Your task to perform on an android device: Go to battery settings Image 0: 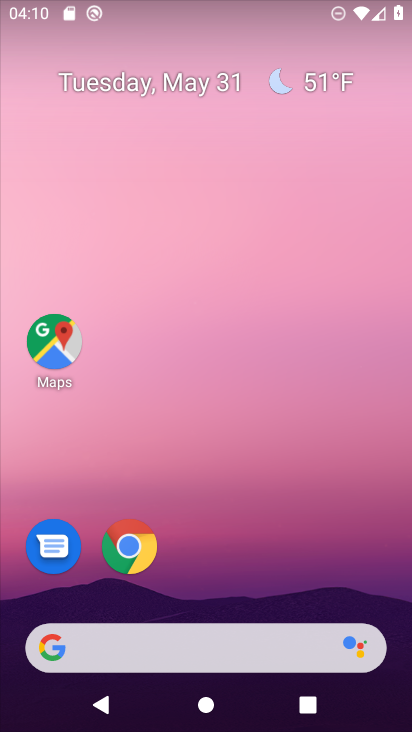
Step 0: drag from (221, 589) to (183, 99)
Your task to perform on an android device: Go to battery settings Image 1: 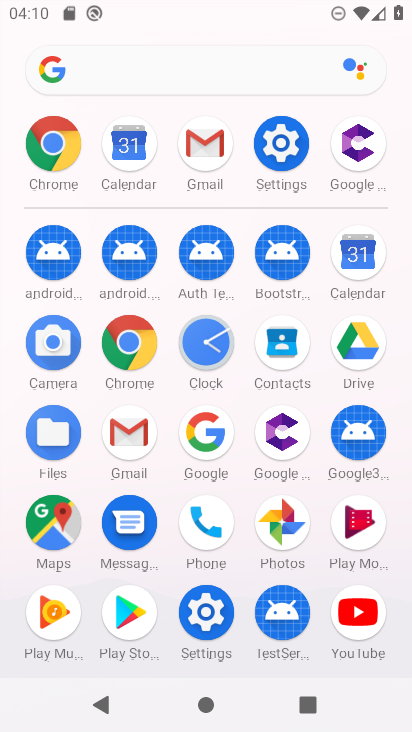
Step 1: click (279, 145)
Your task to perform on an android device: Go to battery settings Image 2: 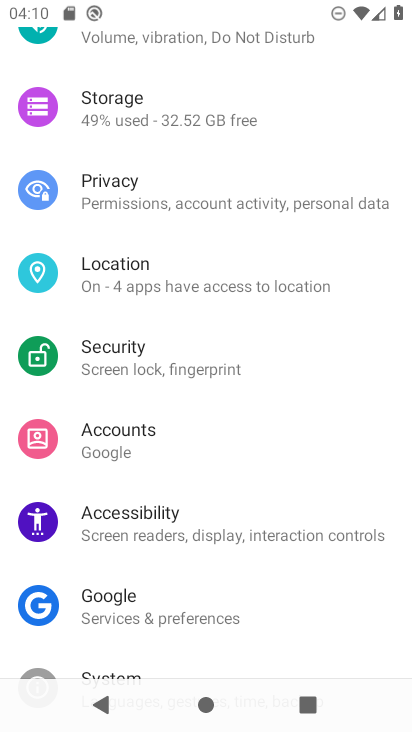
Step 2: drag from (146, 276) to (135, 535)
Your task to perform on an android device: Go to battery settings Image 3: 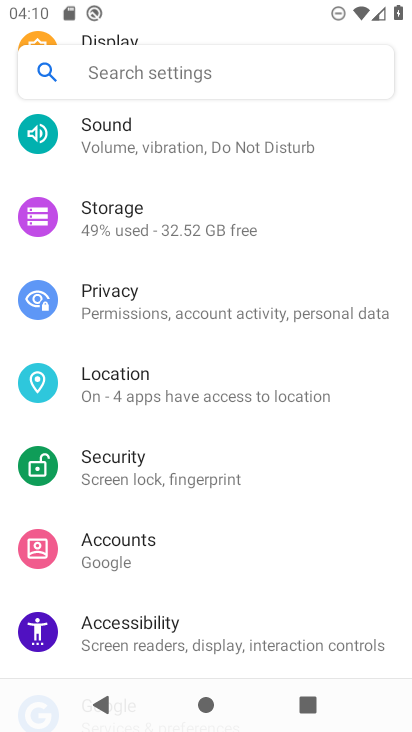
Step 3: drag from (124, 217) to (84, 611)
Your task to perform on an android device: Go to battery settings Image 4: 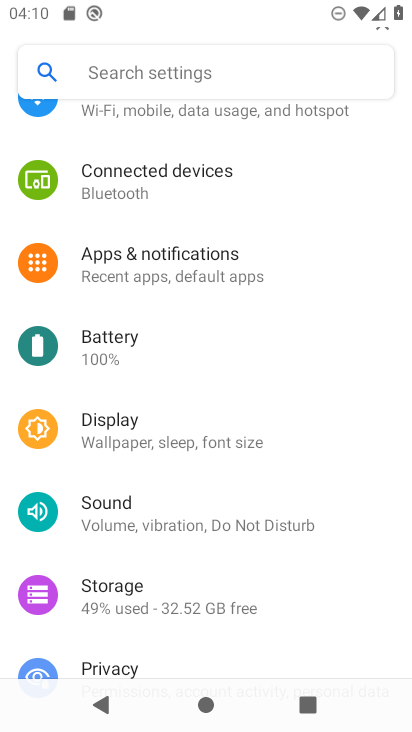
Step 4: click (118, 342)
Your task to perform on an android device: Go to battery settings Image 5: 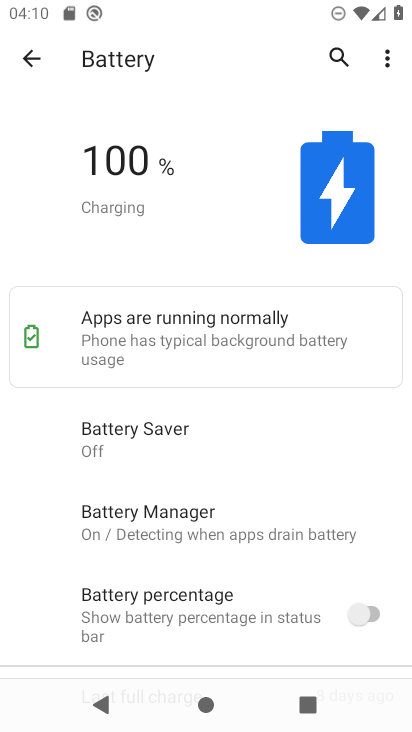
Step 5: task complete